Your task to perform on an android device: Add razer deathadder to the cart on amazon.com, then select checkout. Image 0: 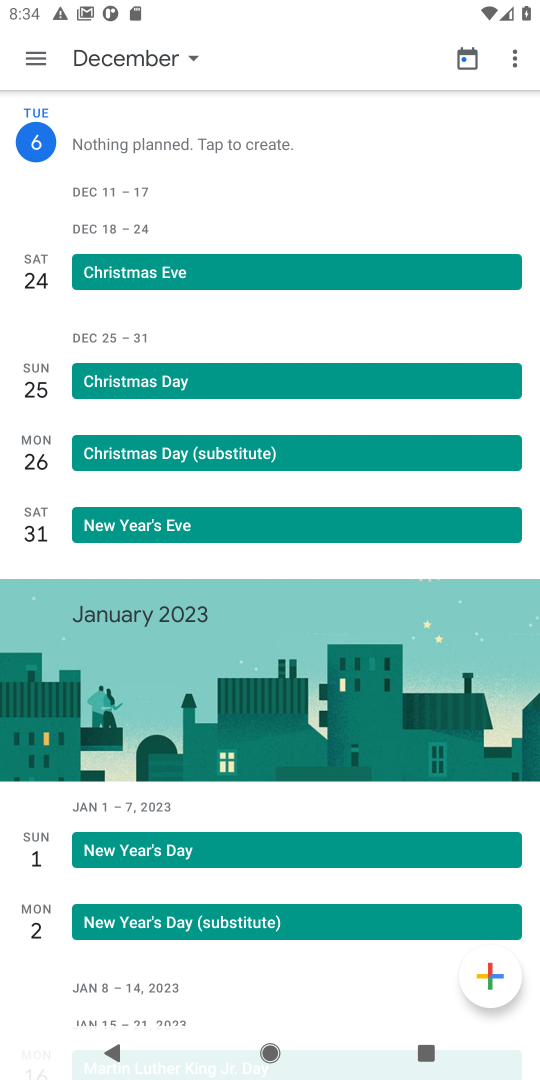
Step 0: press home button
Your task to perform on an android device: Add razer deathadder to the cart on amazon.com, then select checkout. Image 1: 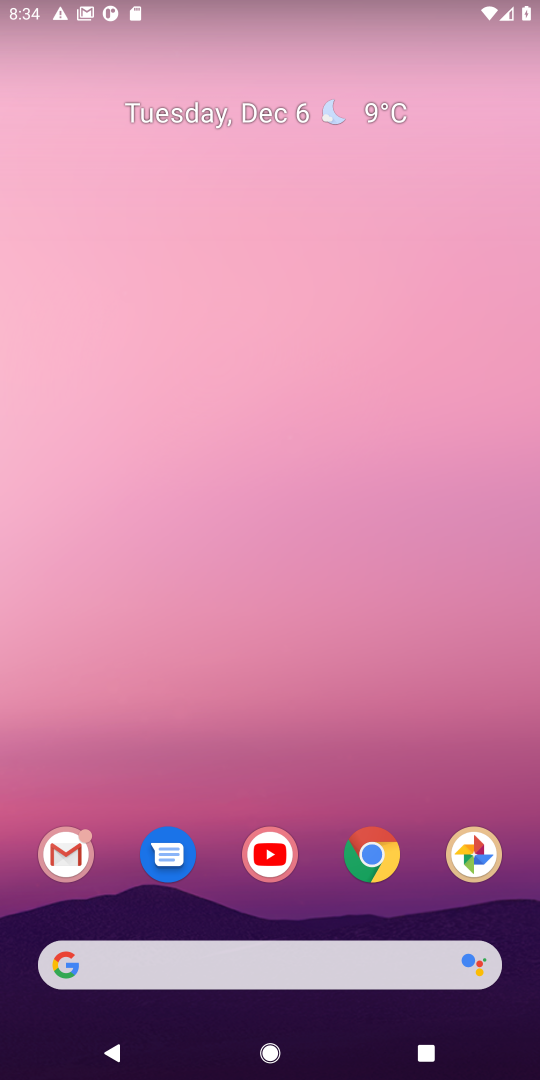
Step 1: click (371, 866)
Your task to perform on an android device: Add razer deathadder to the cart on amazon.com, then select checkout. Image 2: 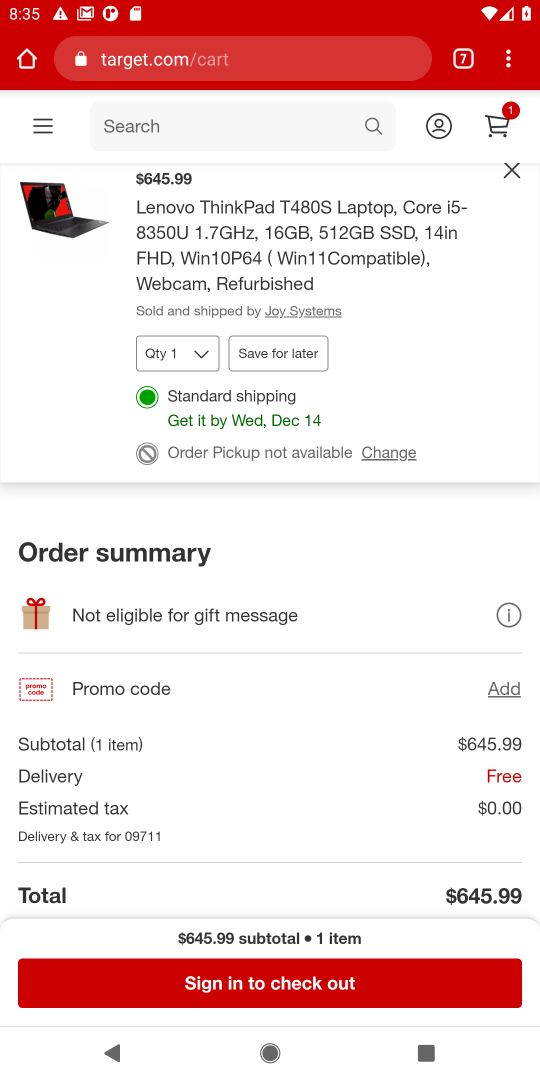
Step 2: click (458, 63)
Your task to perform on an android device: Add razer deathadder to the cart on amazon.com, then select checkout. Image 3: 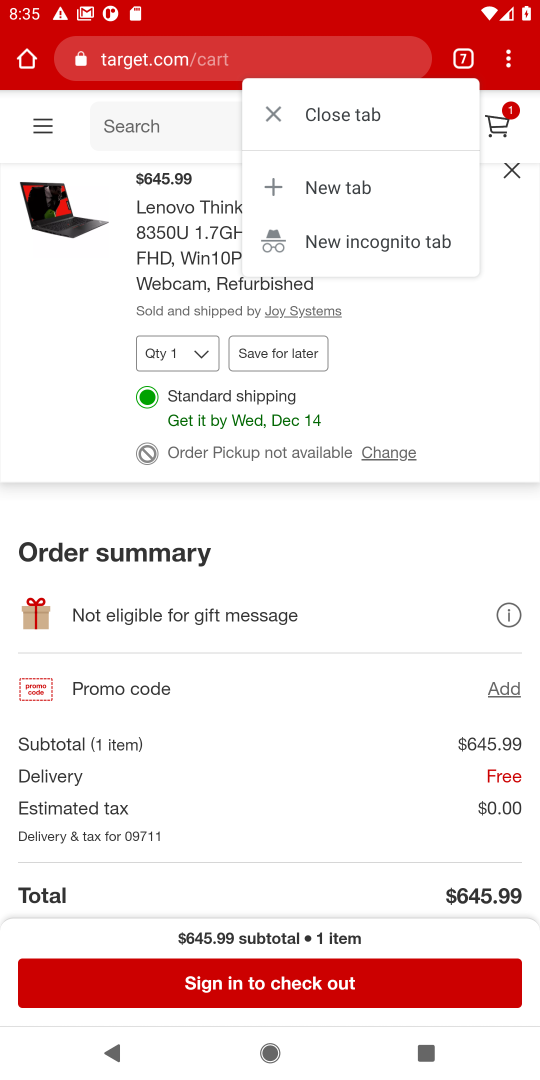
Step 3: click (472, 51)
Your task to perform on an android device: Add razer deathadder to the cart on amazon.com, then select checkout. Image 4: 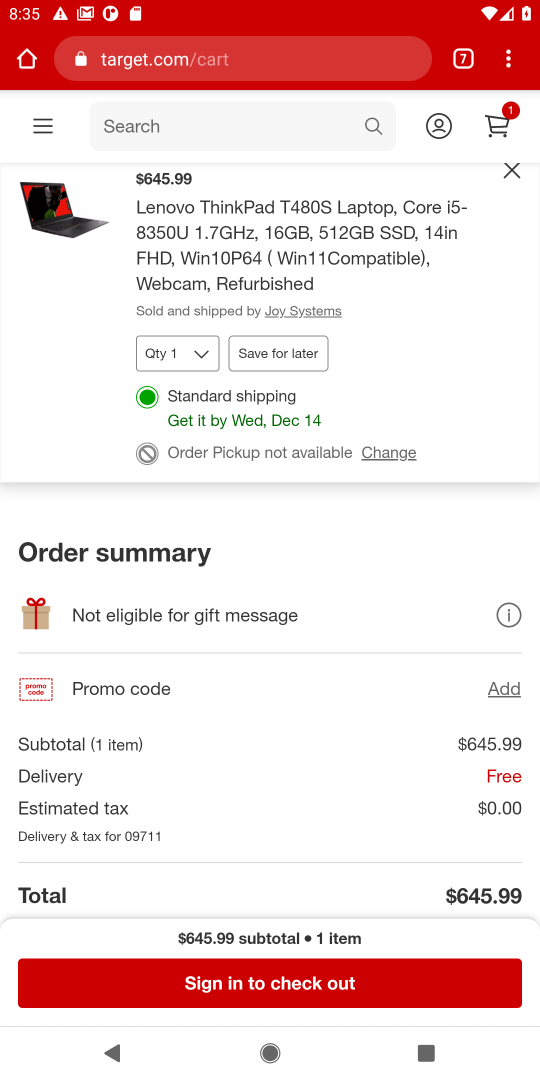
Step 4: click (472, 51)
Your task to perform on an android device: Add razer deathadder to the cart on amazon.com, then select checkout. Image 5: 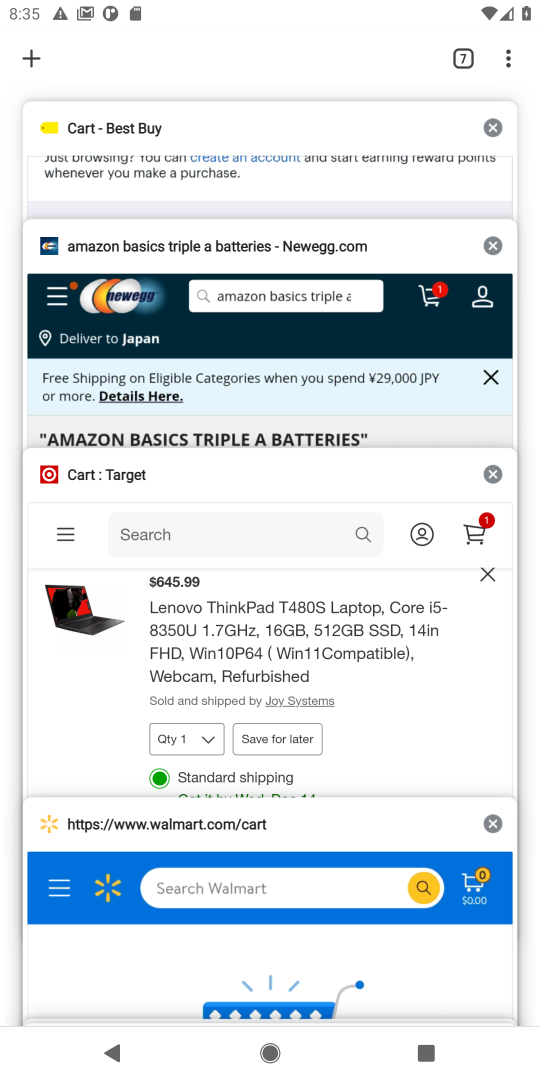
Step 5: drag from (193, 891) to (311, 178)
Your task to perform on an android device: Add razer deathadder to the cart on amazon.com, then select checkout. Image 6: 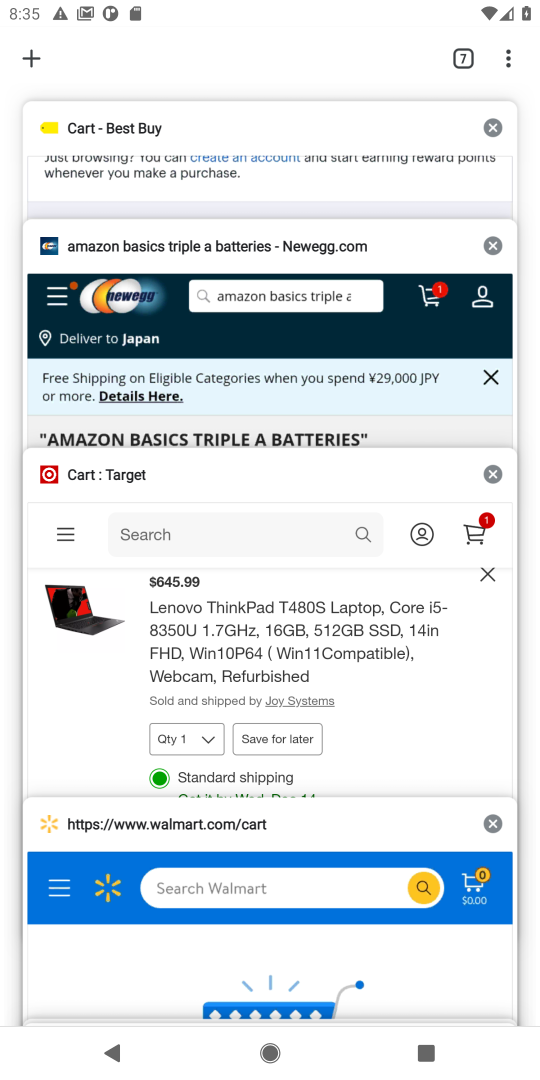
Step 6: drag from (311, 871) to (463, 578)
Your task to perform on an android device: Add razer deathadder to the cart on amazon.com, then select checkout. Image 7: 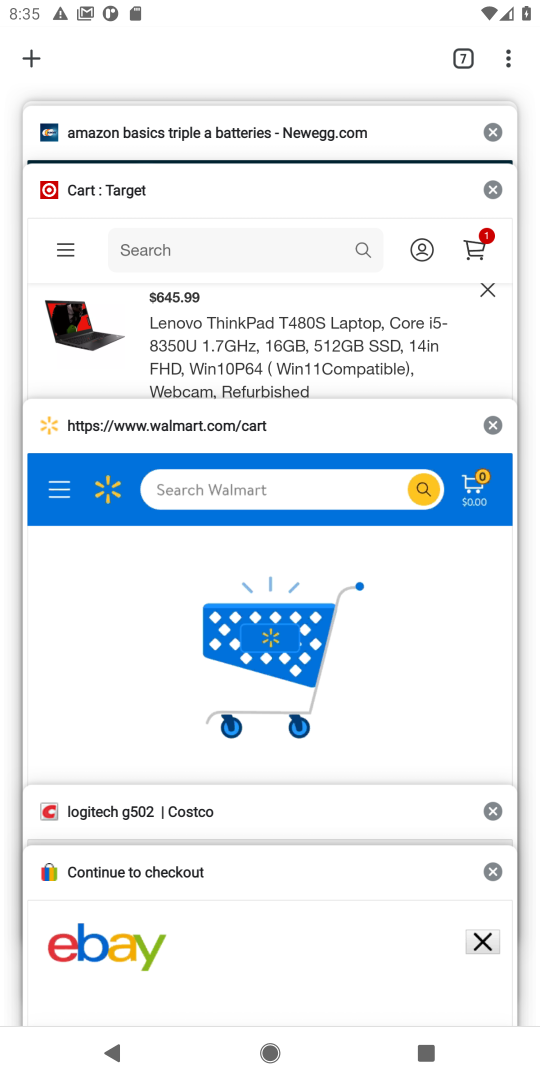
Step 7: drag from (356, 930) to (539, 722)
Your task to perform on an android device: Add razer deathadder to the cart on amazon.com, then select checkout. Image 8: 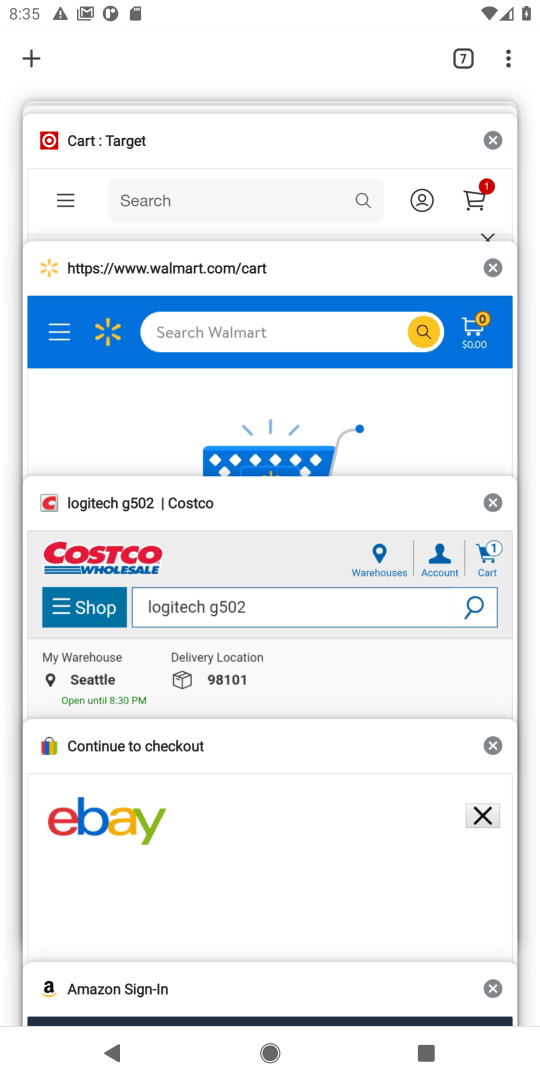
Step 8: click (362, 452)
Your task to perform on an android device: Add razer deathadder to the cart on amazon.com, then select checkout. Image 9: 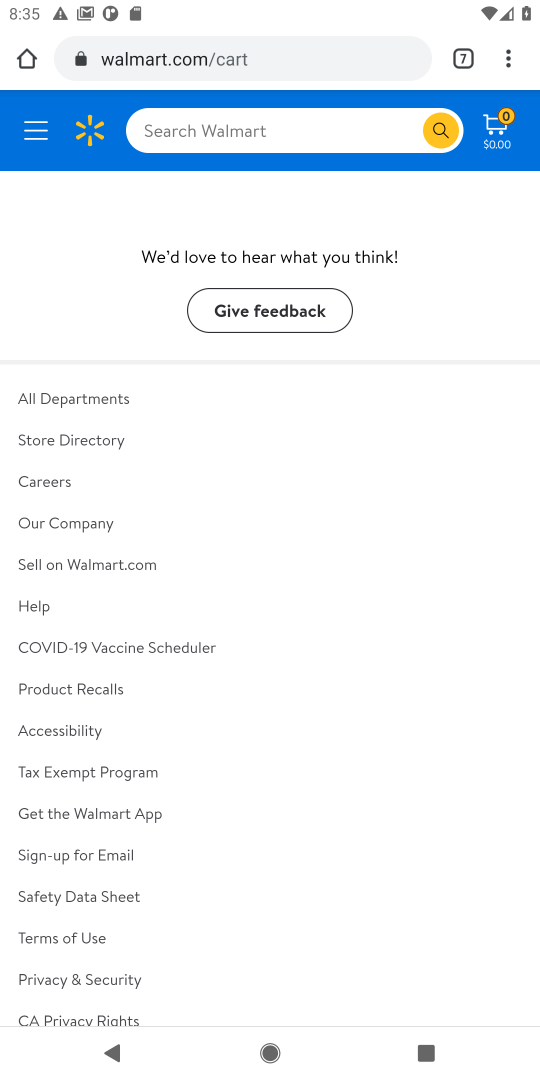
Step 9: click (464, 73)
Your task to perform on an android device: Add razer deathadder to the cart on amazon.com, then select checkout. Image 10: 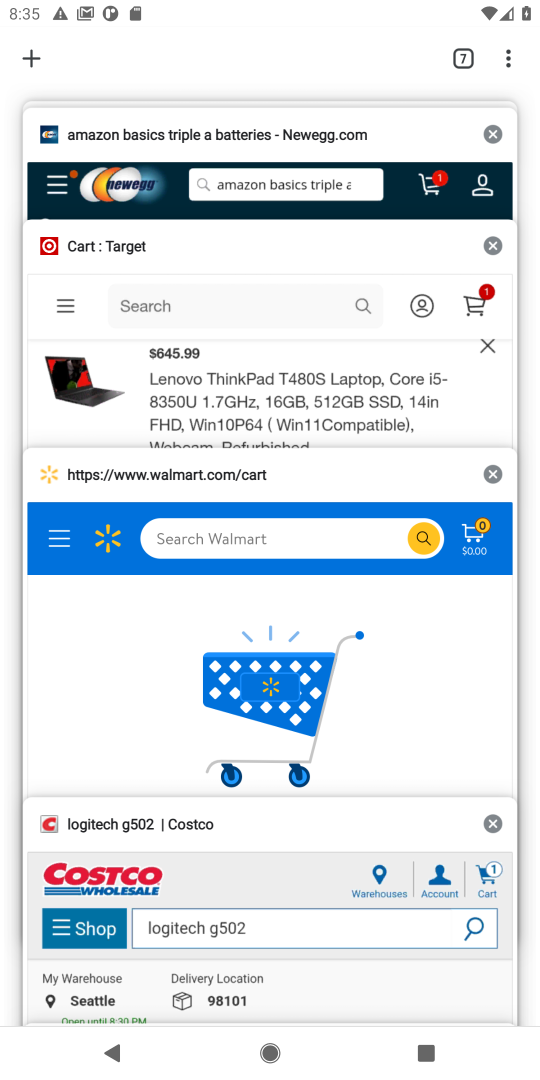
Step 10: drag from (150, 960) to (322, 417)
Your task to perform on an android device: Add razer deathadder to the cart on amazon.com, then select checkout. Image 11: 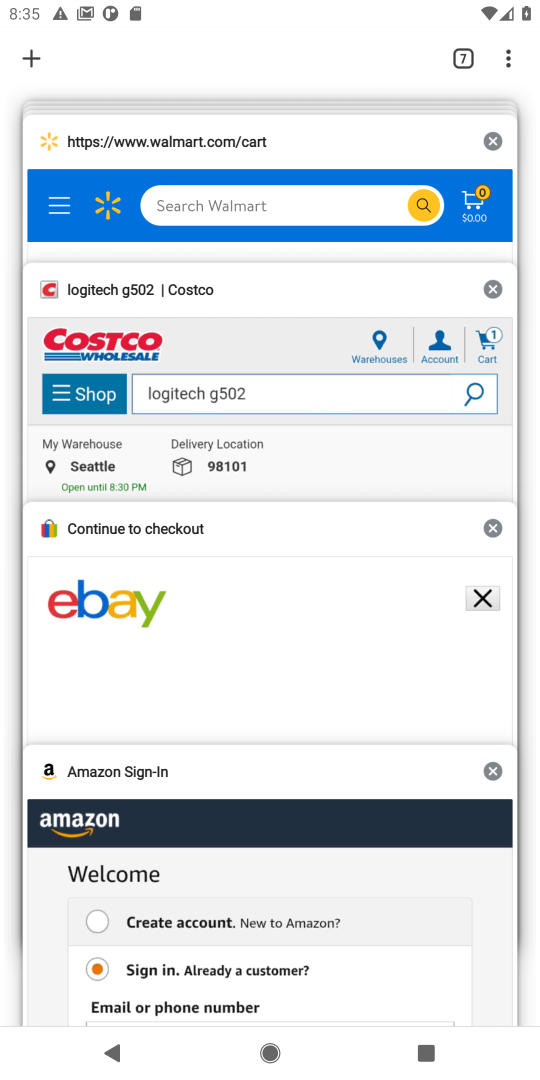
Step 11: click (273, 838)
Your task to perform on an android device: Add razer deathadder to the cart on amazon.com, then select checkout. Image 12: 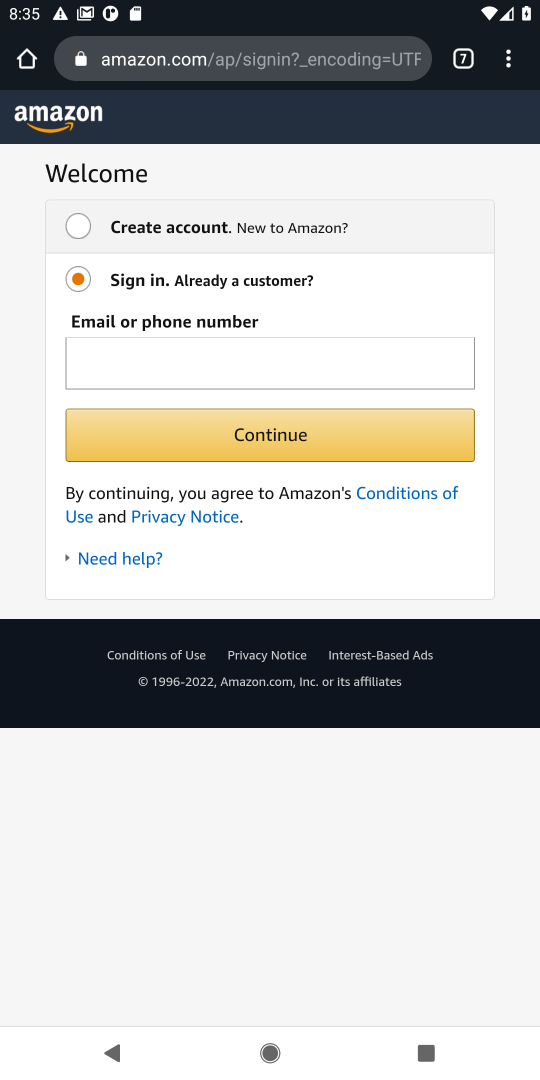
Step 12: press back button
Your task to perform on an android device: Add razer deathadder to the cart on amazon.com, then select checkout. Image 13: 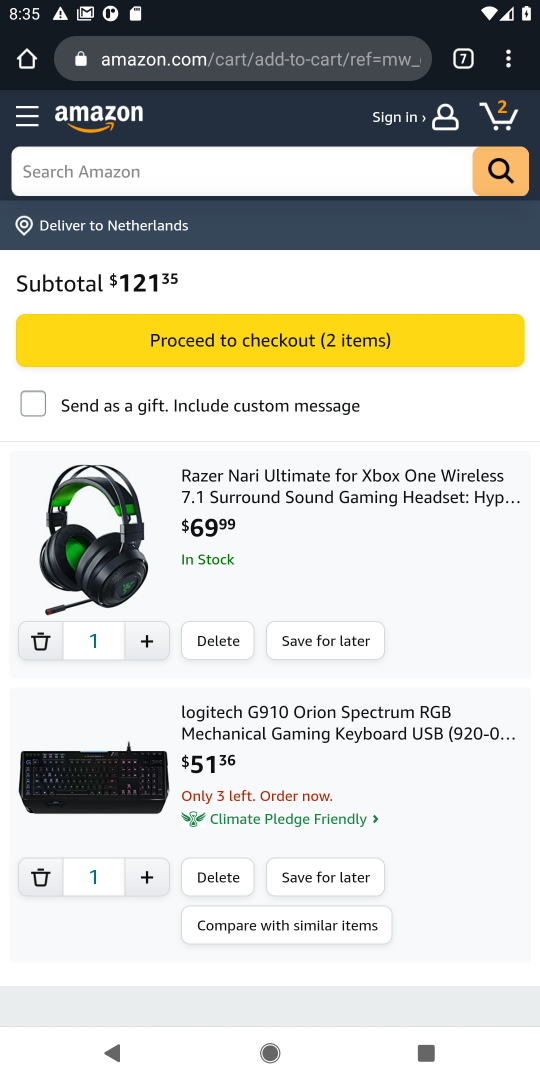
Step 13: click (241, 175)
Your task to perform on an android device: Add razer deathadder to the cart on amazon.com, then select checkout. Image 14: 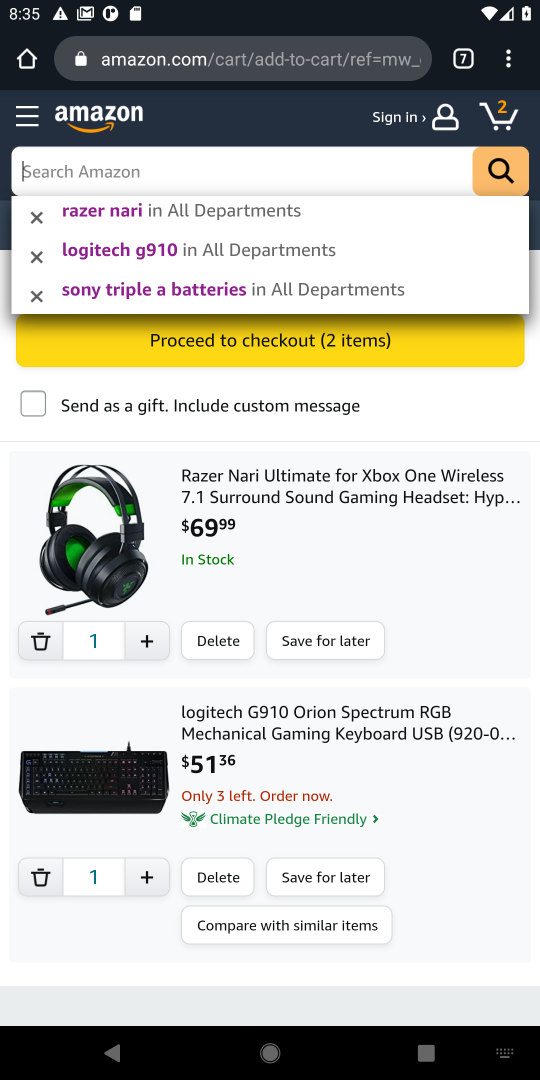
Step 14: type "razer deathadder"
Your task to perform on an android device: Add razer deathadder to the cart on amazon.com, then select checkout. Image 15: 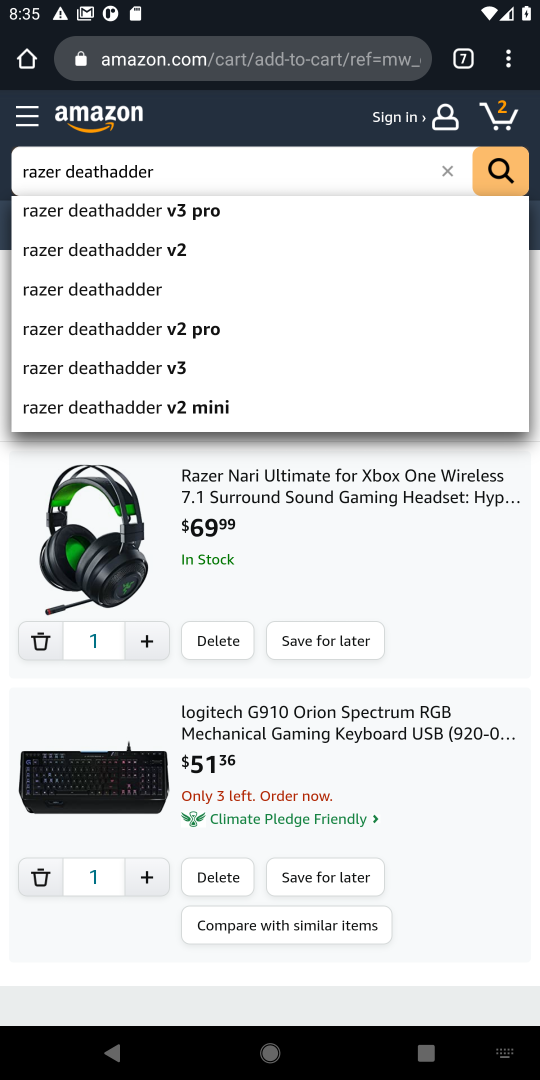
Step 15: click (107, 289)
Your task to perform on an android device: Add razer deathadder to the cart on amazon.com, then select checkout. Image 16: 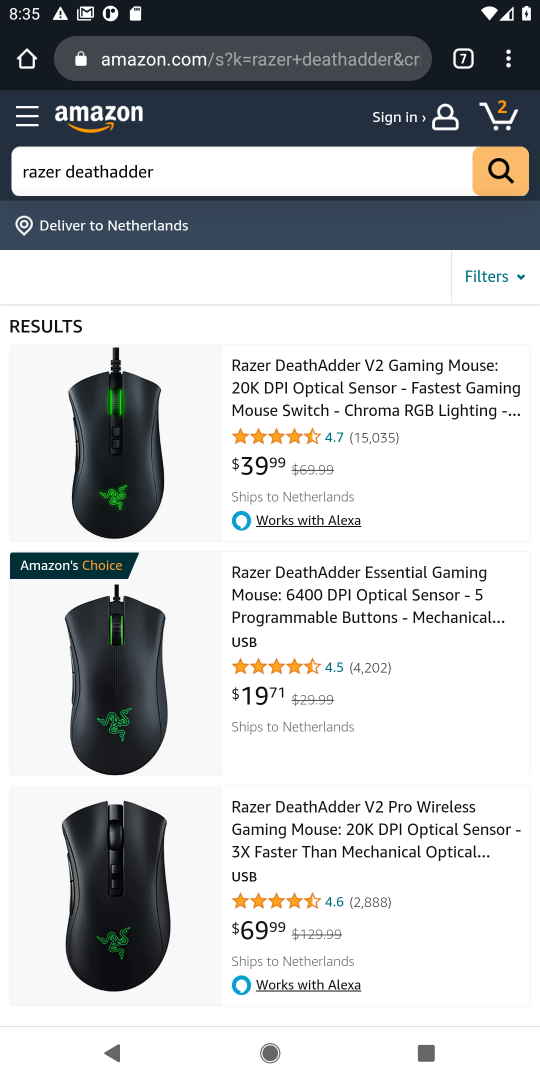
Step 16: click (331, 411)
Your task to perform on an android device: Add razer deathadder to the cart on amazon.com, then select checkout. Image 17: 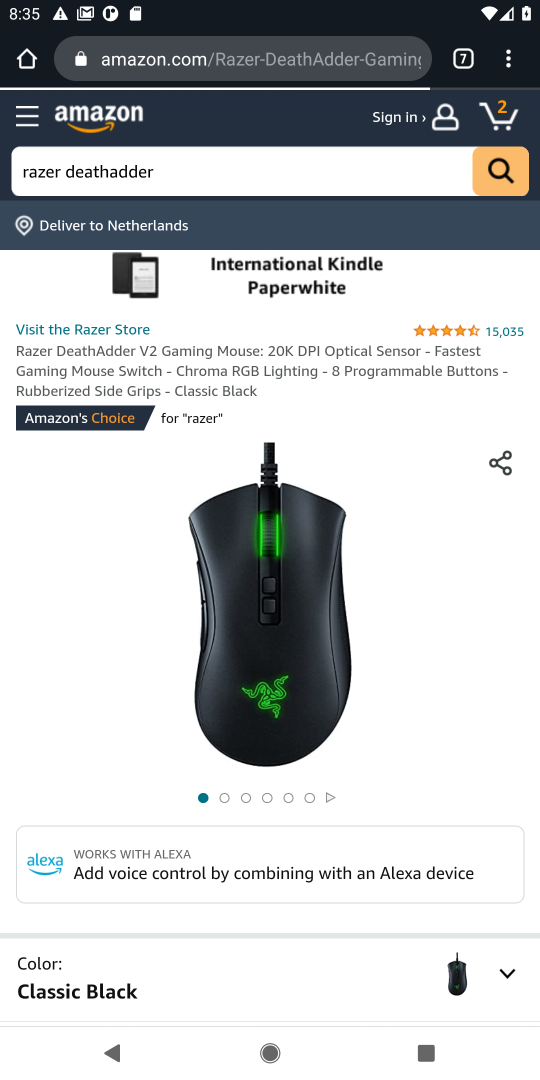
Step 17: drag from (335, 915) to (477, 314)
Your task to perform on an android device: Add razer deathadder to the cart on amazon.com, then select checkout. Image 18: 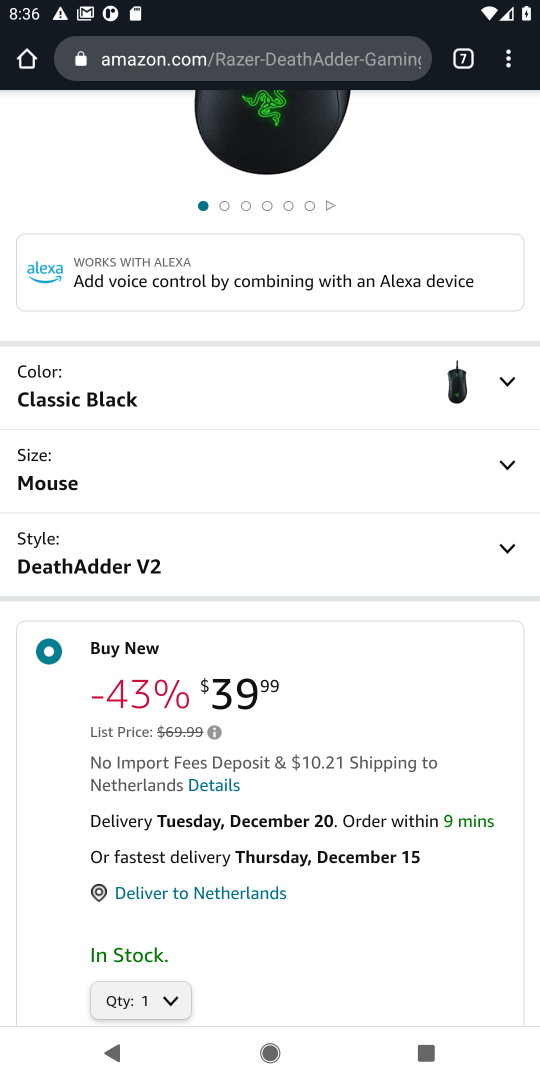
Step 18: drag from (364, 876) to (465, 454)
Your task to perform on an android device: Add razer deathadder to the cart on amazon.com, then select checkout. Image 19: 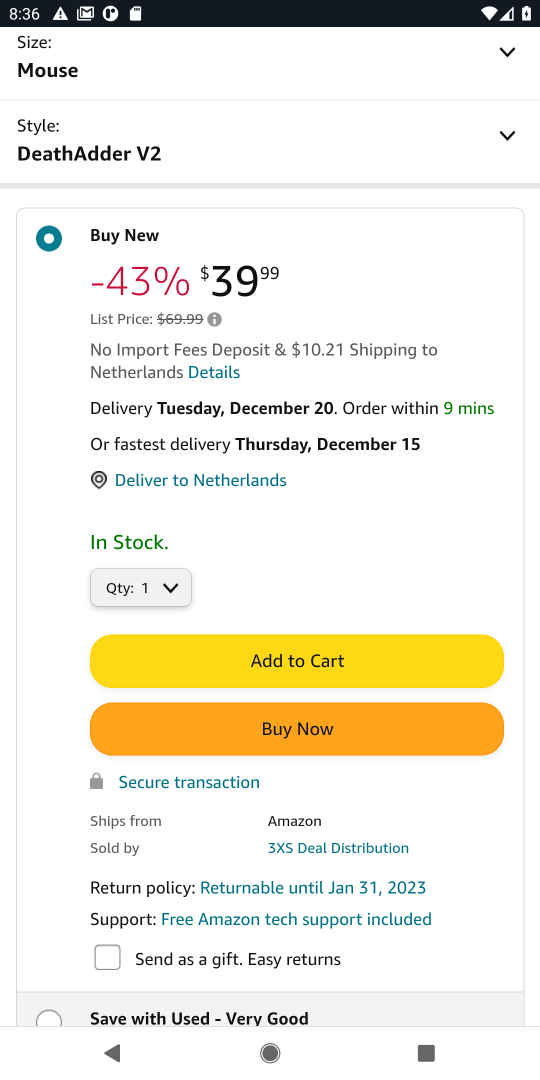
Step 19: click (423, 673)
Your task to perform on an android device: Add razer deathadder to the cart on amazon.com, then select checkout. Image 20: 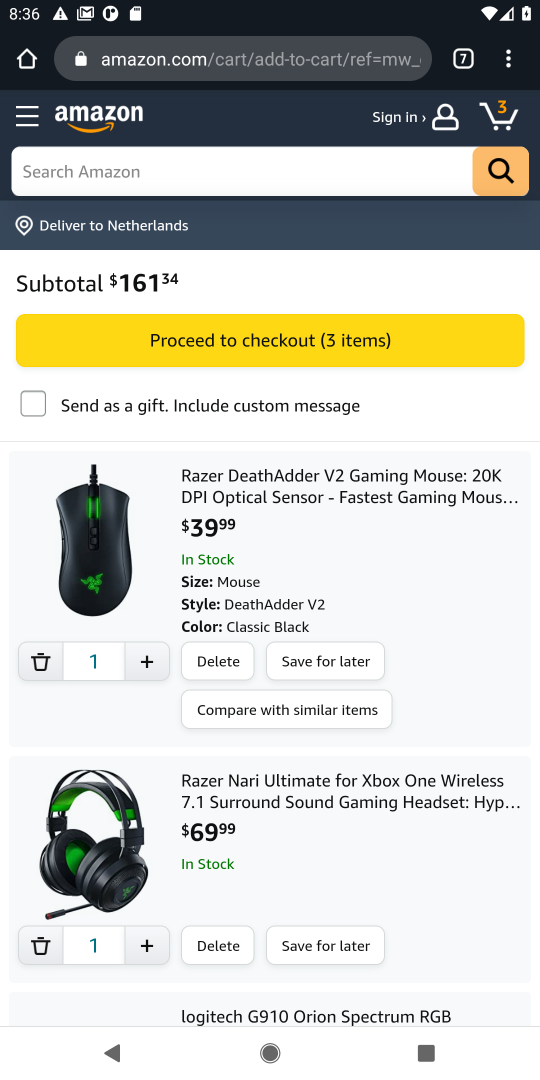
Step 20: click (396, 369)
Your task to perform on an android device: Add razer deathadder to the cart on amazon.com, then select checkout. Image 21: 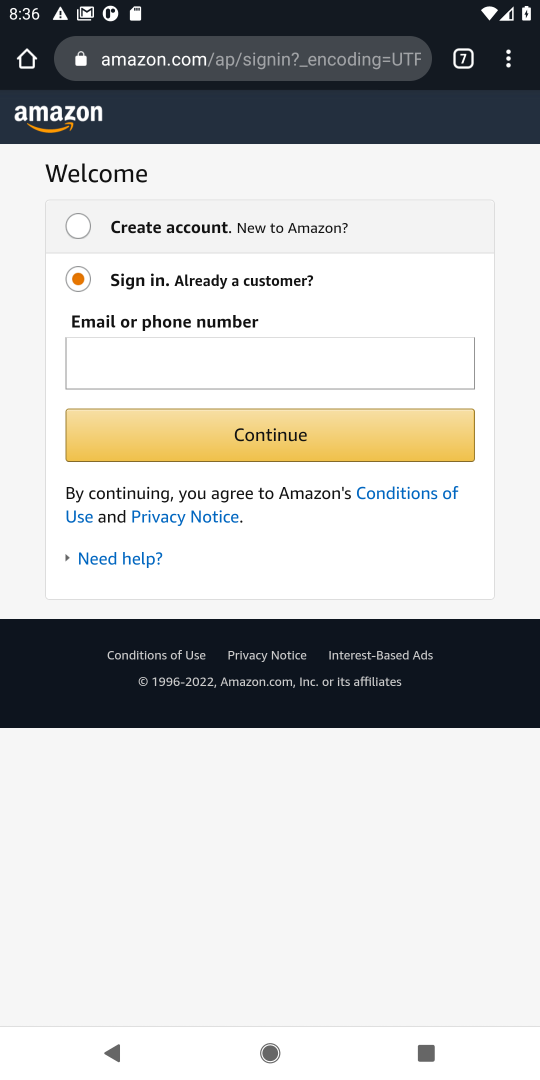
Step 21: task complete